Your task to perform on an android device: Open Reddit.com Image 0: 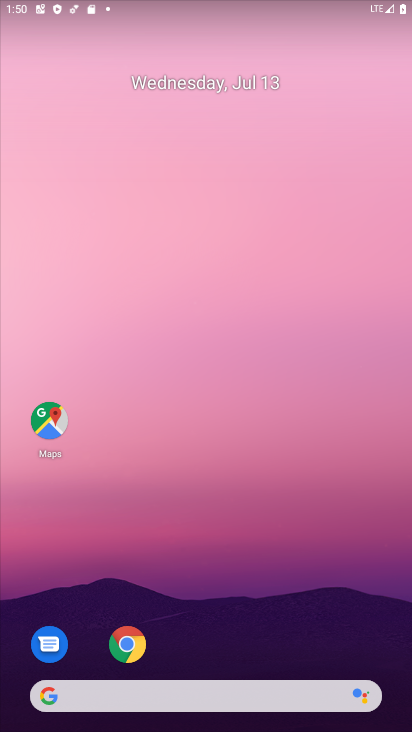
Step 0: drag from (297, 605) to (241, 44)
Your task to perform on an android device: Open Reddit.com Image 1: 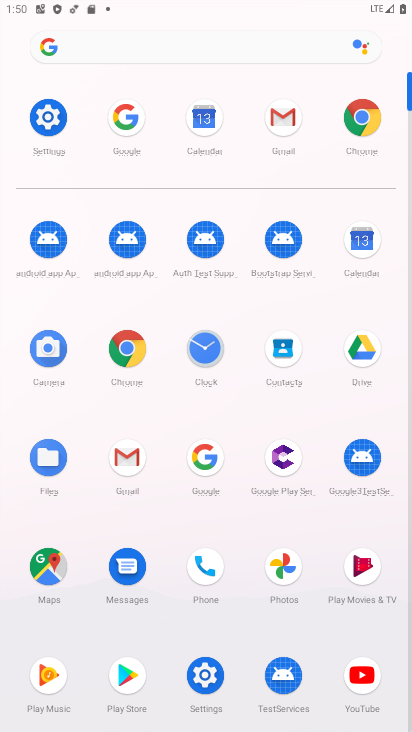
Step 1: click (364, 117)
Your task to perform on an android device: Open Reddit.com Image 2: 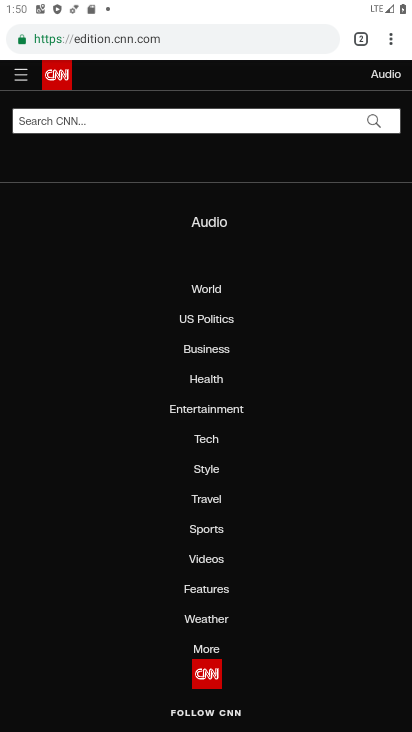
Step 2: click (222, 41)
Your task to perform on an android device: Open Reddit.com Image 3: 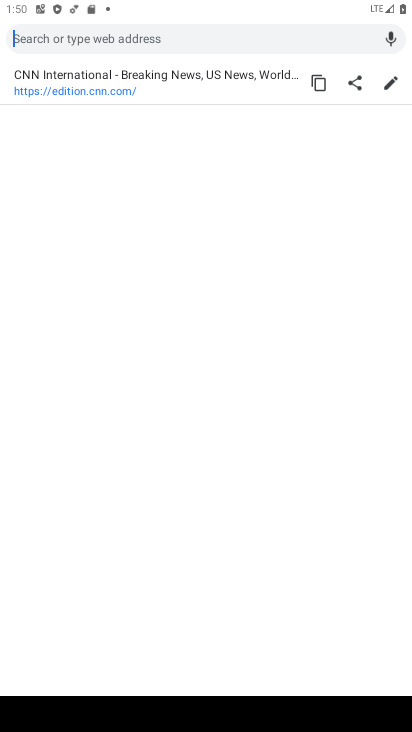
Step 3: type "reddit.com"
Your task to perform on an android device: Open Reddit.com Image 4: 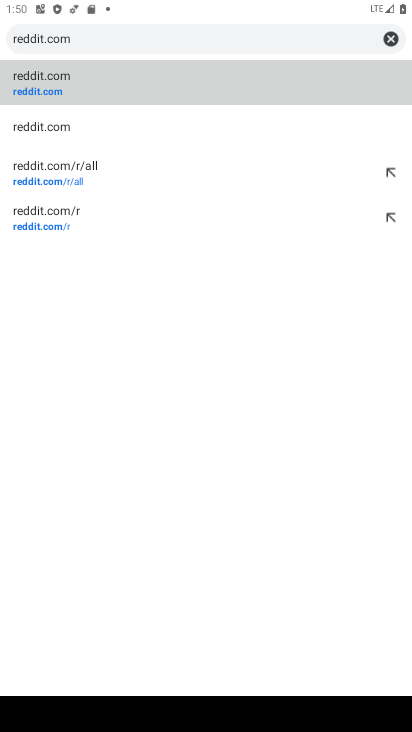
Step 4: click (33, 95)
Your task to perform on an android device: Open Reddit.com Image 5: 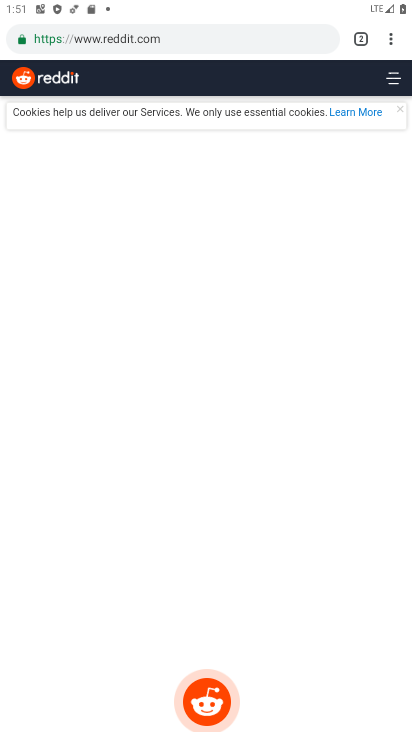
Step 5: task complete